Your task to perform on an android device: Check the news Image 0: 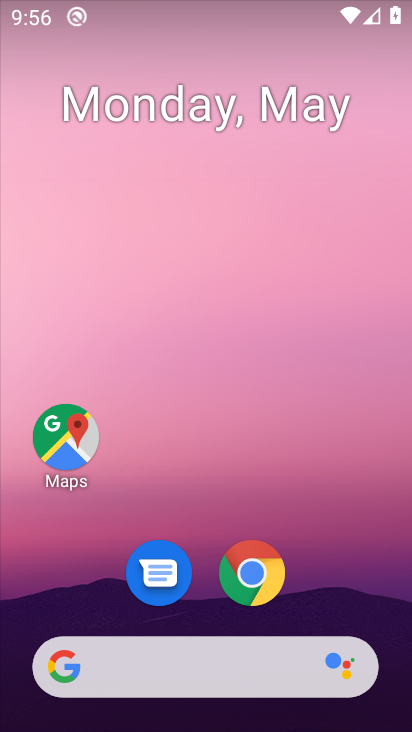
Step 0: drag from (148, 594) to (226, 180)
Your task to perform on an android device: Check the news Image 1: 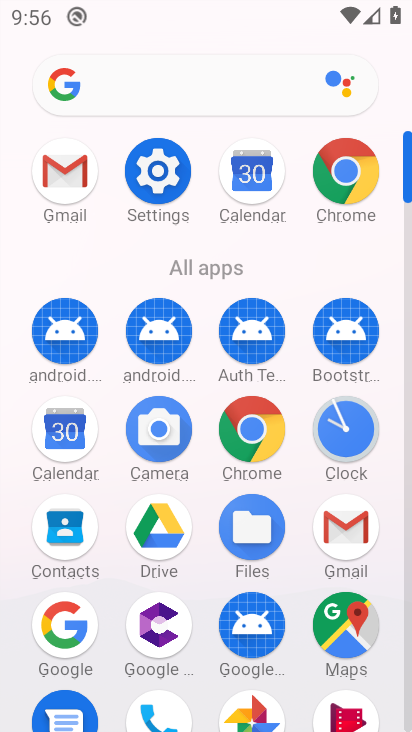
Step 1: click (161, 93)
Your task to perform on an android device: Check the news Image 2: 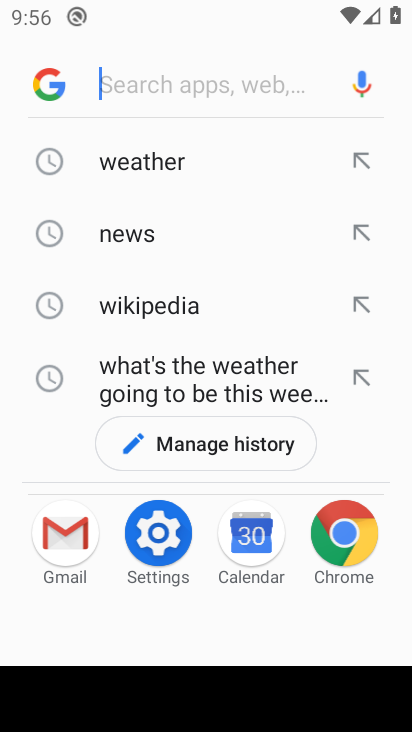
Step 2: click (126, 237)
Your task to perform on an android device: Check the news Image 3: 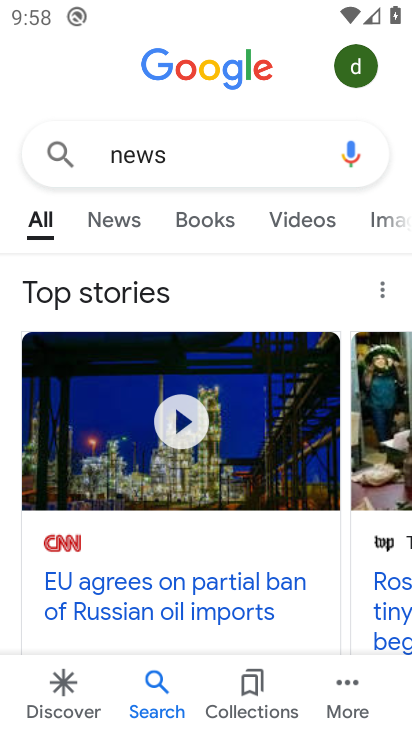
Step 3: task complete